Your task to perform on an android device: change notifications settings Image 0: 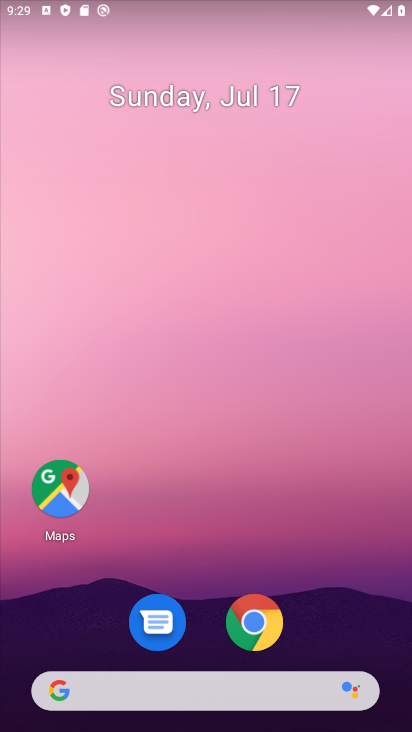
Step 0: drag from (108, 481) to (144, 44)
Your task to perform on an android device: change notifications settings Image 1: 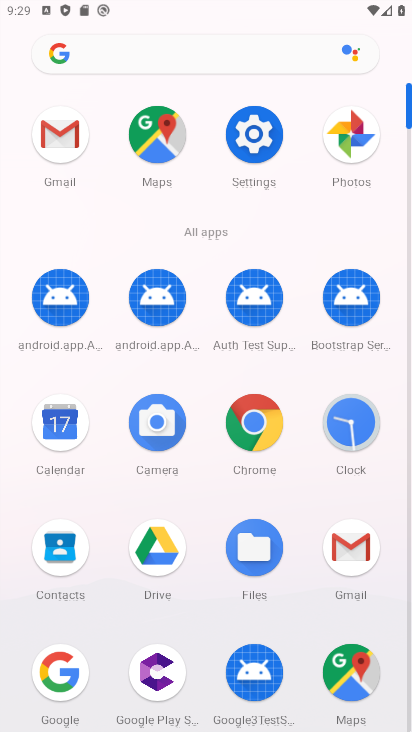
Step 1: click (258, 140)
Your task to perform on an android device: change notifications settings Image 2: 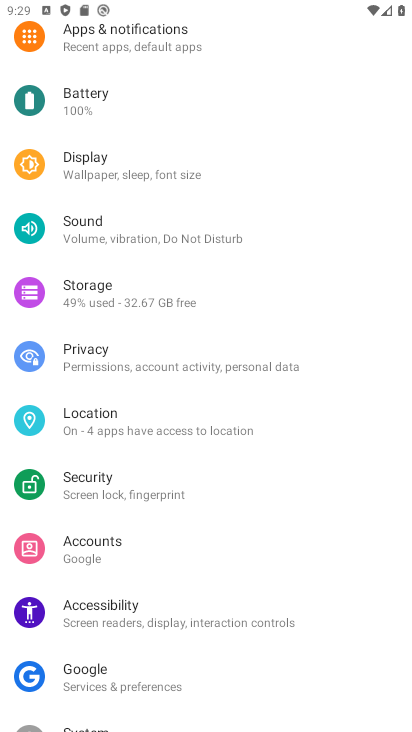
Step 2: click (179, 35)
Your task to perform on an android device: change notifications settings Image 3: 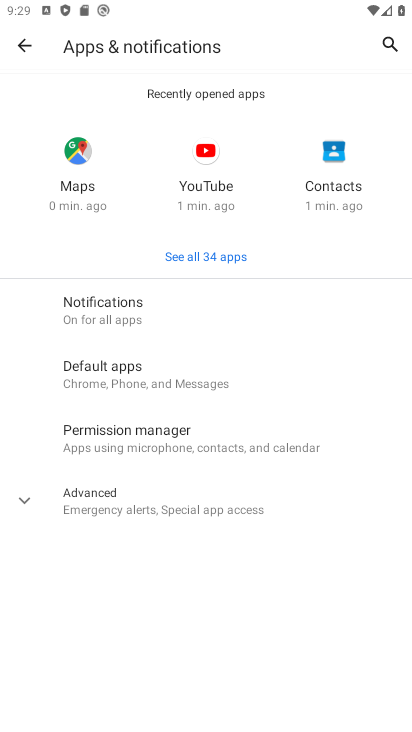
Step 3: click (182, 331)
Your task to perform on an android device: change notifications settings Image 4: 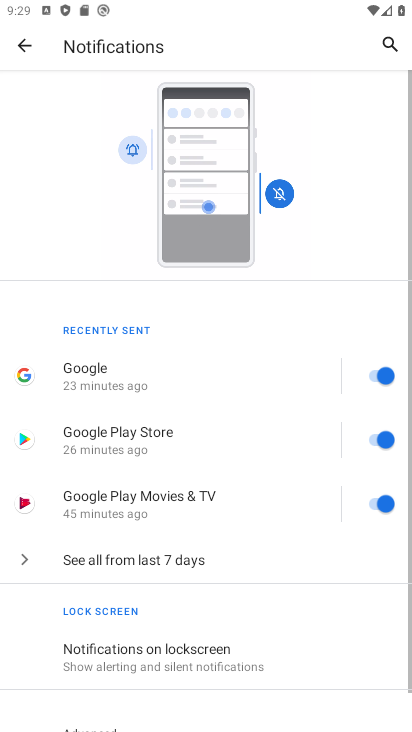
Step 4: click (387, 373)
Your task to perform on an android device: change notifications settings Image 5: 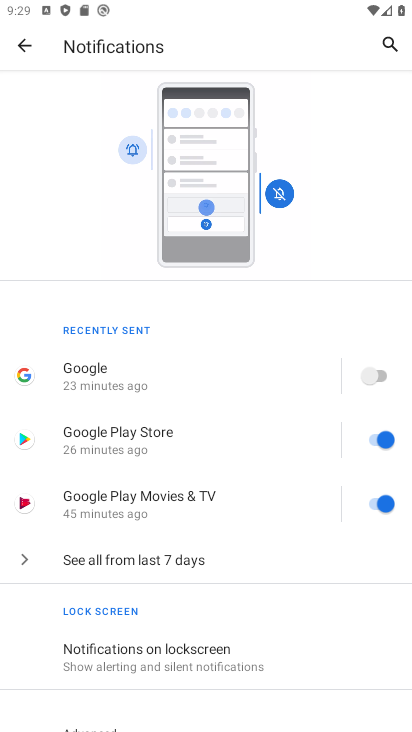
Step 5: task complete